Your task to perform on an android device: check storage Image 0: 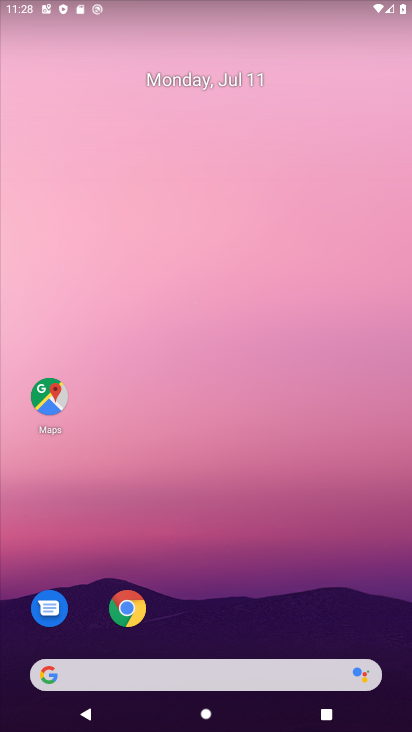
Step 0: drag from (252, 4) to (212, 499)
Your task to perform on an android device: check storage Image 1: 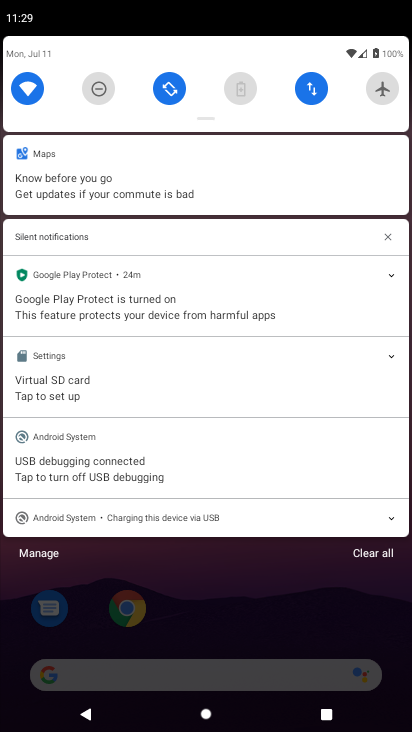
Step 1: drag from (272, 47) to (233, 550)
Your task to perform on an android device: check storage Image 2: 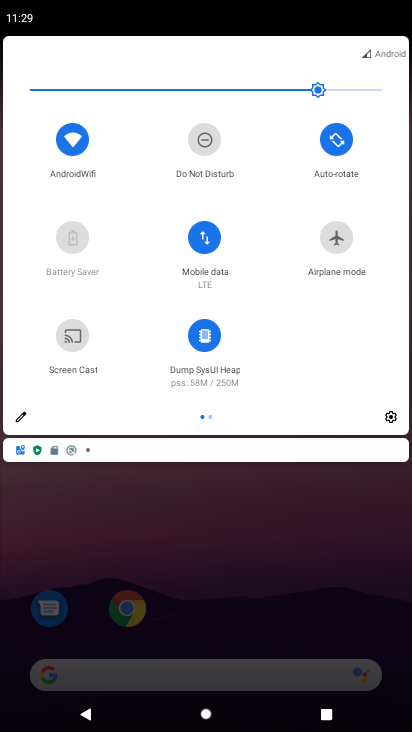
Step 2: click (392, 414)
Your task to perform on an android device: check storage Image 3: 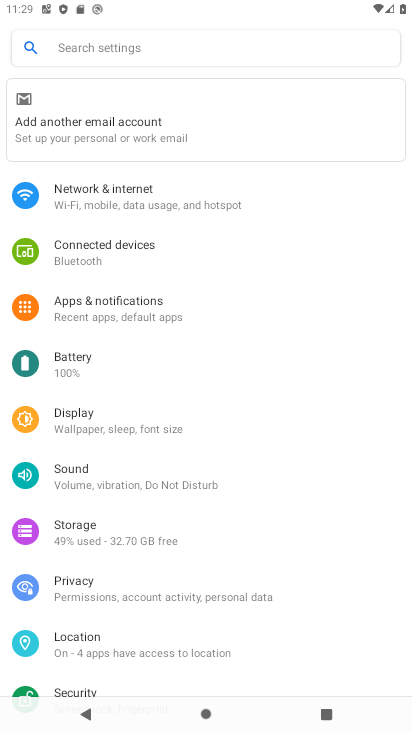
Step 3: click (160, 546)
Your task to perform on an android device: check storage Image 4: 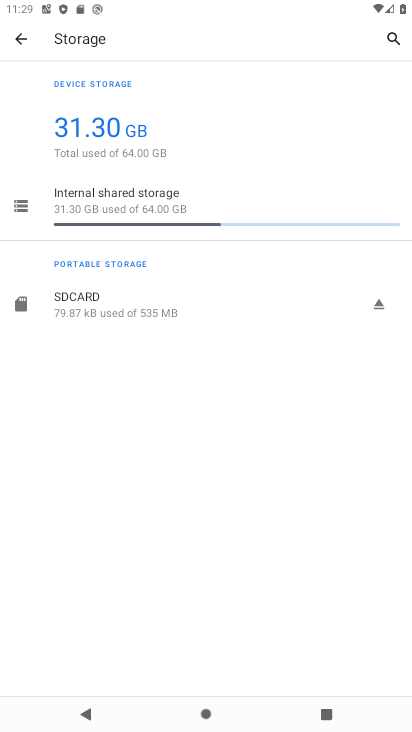
Step 4: task complete